Your task to perform on an android device: turn on bluetooth scan Image 0: 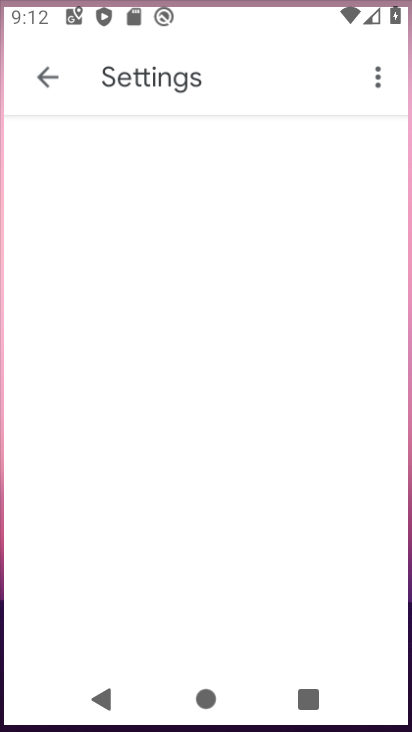
Step 0: press home button
Your task to perform on an android device: turn on bluetooth scan Image 1: 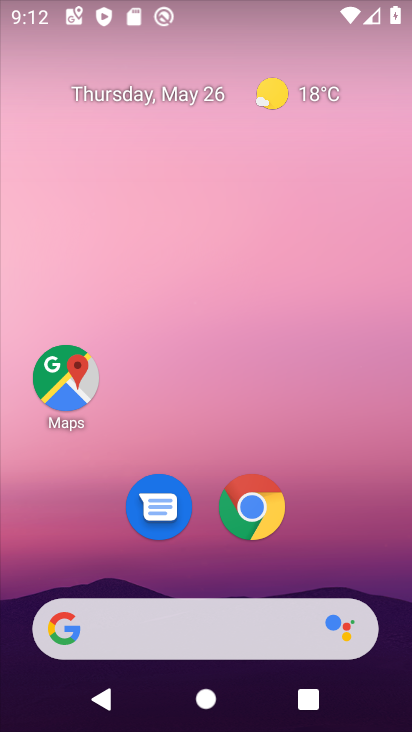
Step 1: drag from (270, 676) to (229, 123)
Your task to perform on an android device: turn on bluetooth scan Image 2: 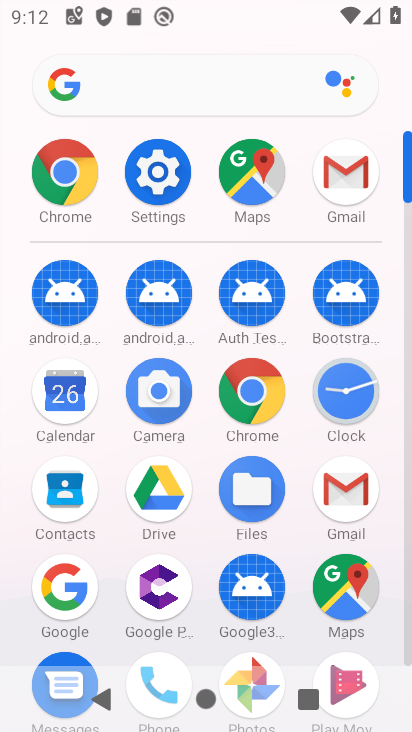
Step 2: click (151, 180)
Your task to perform on an android device: turn on bluetooth scan Image 3: 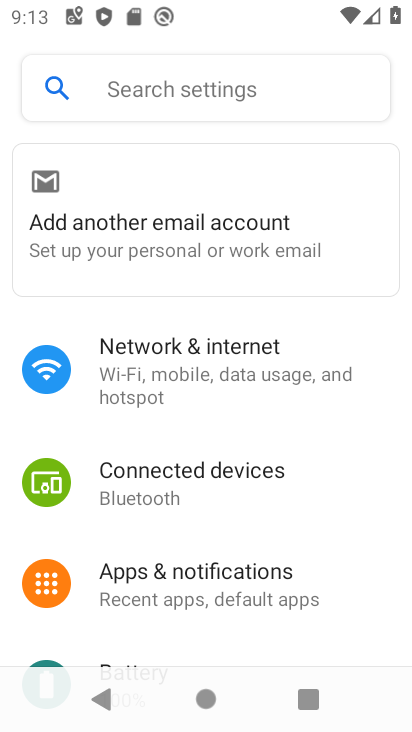
Step 3: click (184, 95)
Your task to perform on an android device: turn on bluetooth scan Image 4: 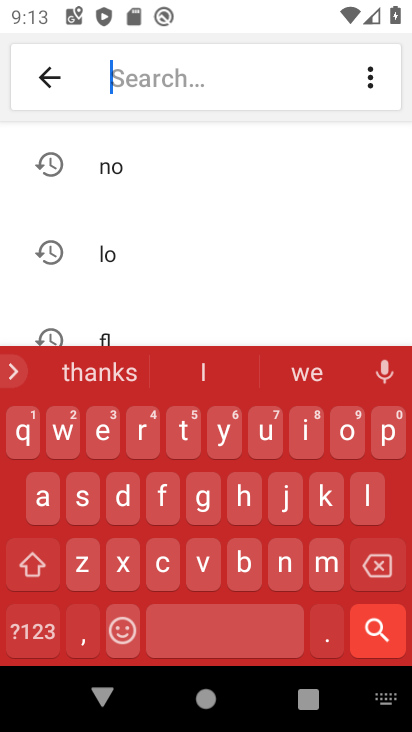
Step 4: click (129, 248)
Your task to perform on an android device: turn on bluetooth scan Image 5: 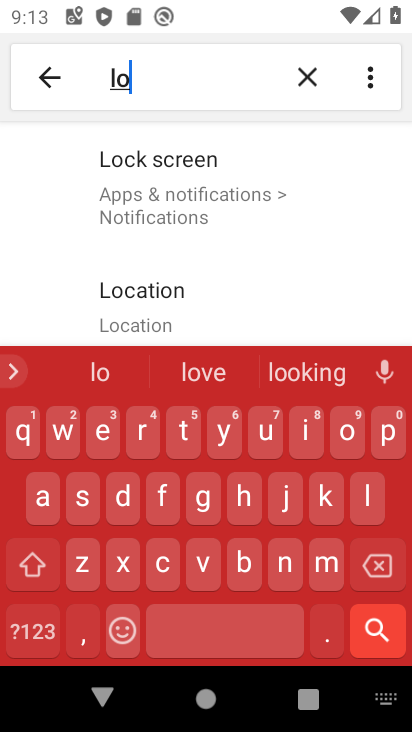
Step 5: click (186, 300)
Your task to perform on an android device: turn on bluetooth scan Image 6: 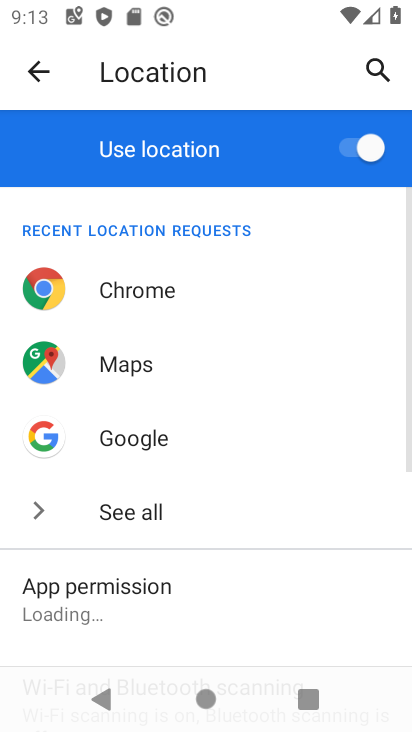
Step 6: drag from (185, 576) to (225, 199)
Your task to perform on an android device: turn on bluetooth scan Image 7: 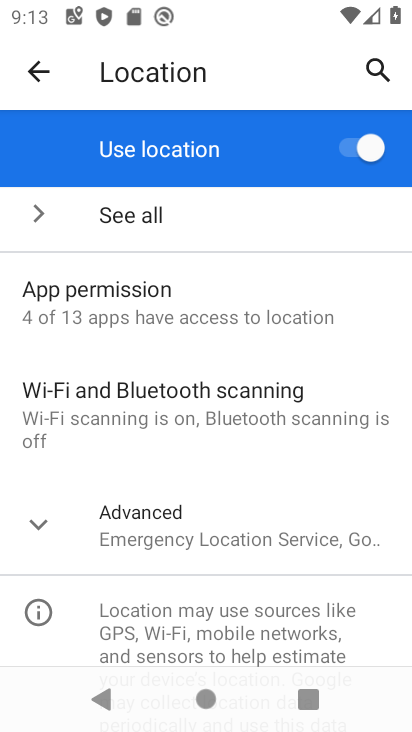
Step 7: click (225, 417)
Your task to perform on an android device: turn on bluetooth scan Image 8: 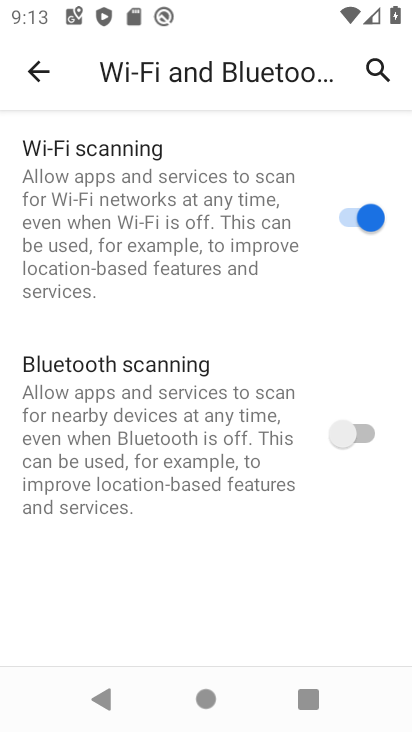
Step 8: click (354, 432)
Your task to perform on an android device: turn on bluetooth scan Image 9: 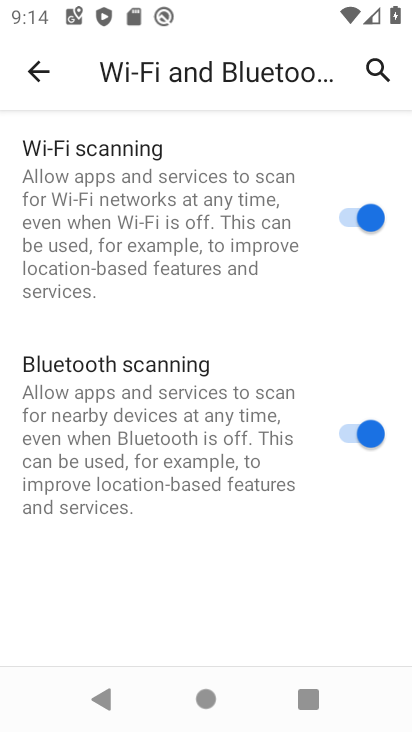
Step 9: task complete